Your task to perform on an android device: delete location history Image 0: 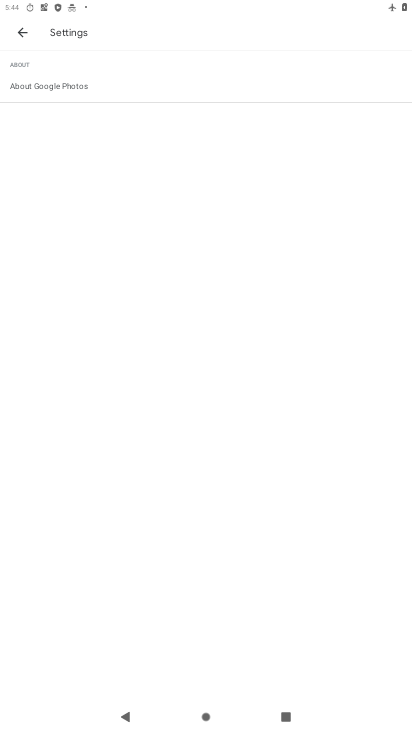
Step 0: press home button
Your task to perform on an android device: delete location history Image 1: 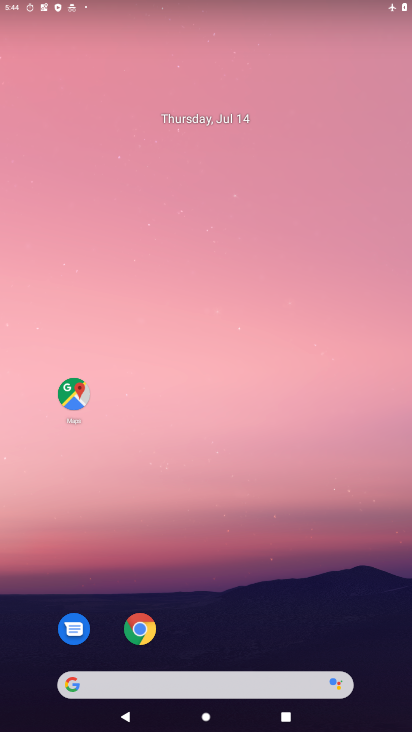
Step 1: drag from (268, 623) to (379, 0)
Your task to perform on an android device: delete location history Image 2: 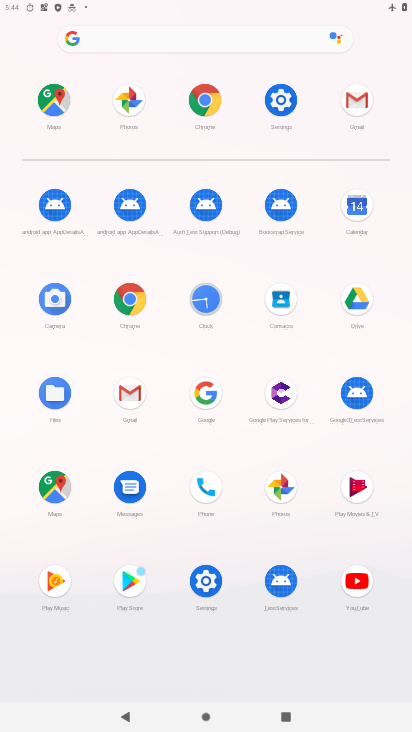
Step 2: click (59, 492)
Your task to perform on an android device: delete location history Image 3: 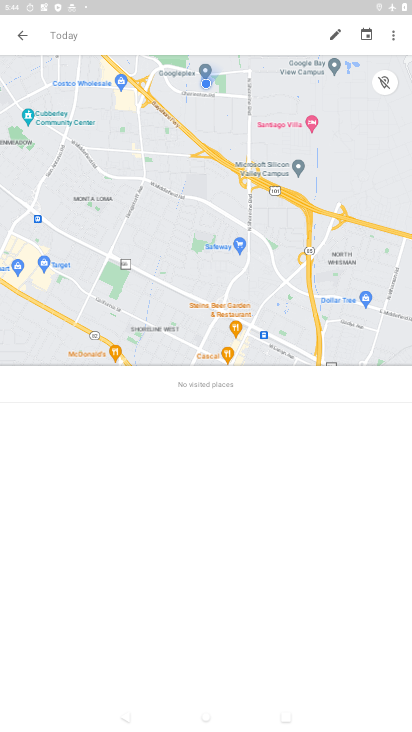
Step 3: press back button
Your task to perform on an android device: delete location history Image 4: 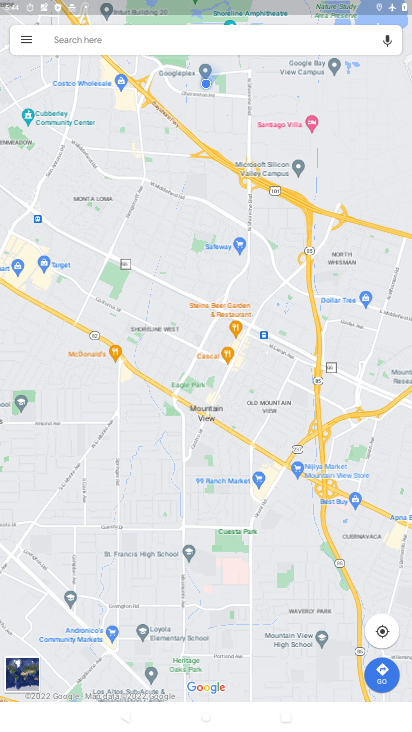
Step 4: click (34, 34)
Your task to perform on an android device: delete location history Image 5: 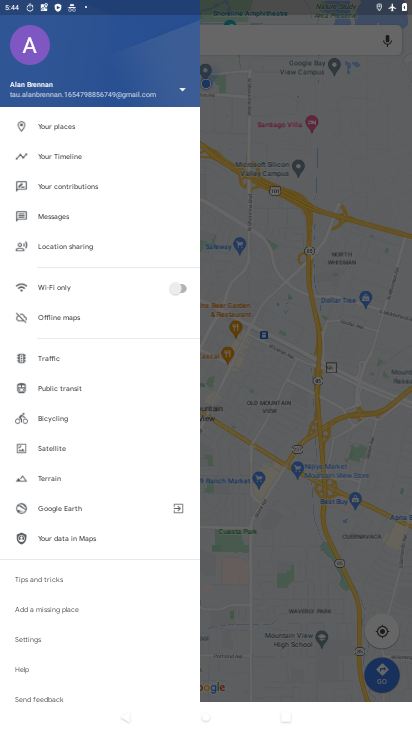
Step 5: click (101, 153)
Your task to perform on an android device: delete location history Image 6: 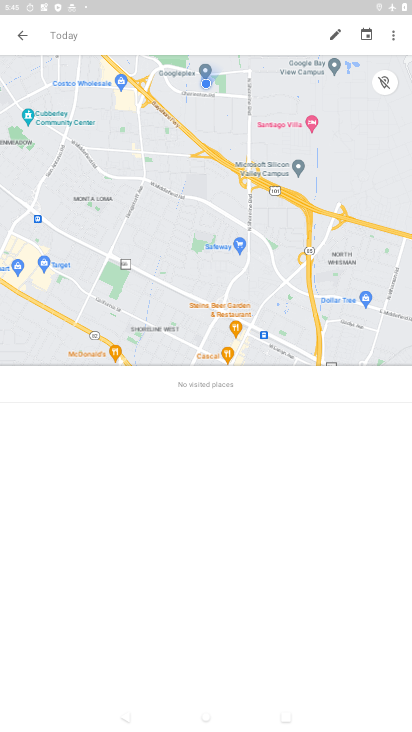
Step 6: click (388, 29)
Your task to perform on an android device: delete location history Image 7: 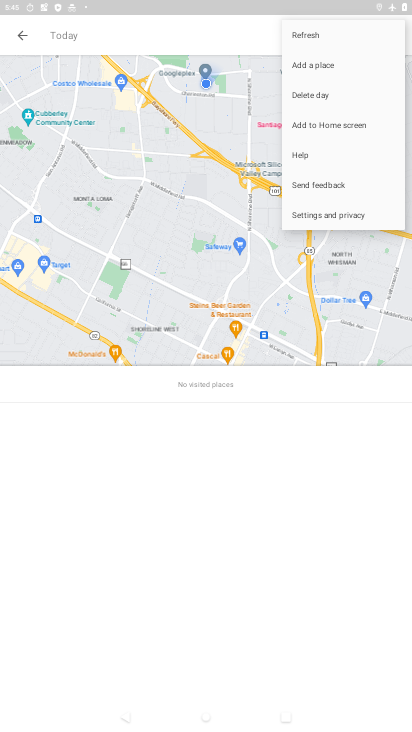
Step 7: click (336, 209)
Your task to perform on an android device: delete location history Image 8: 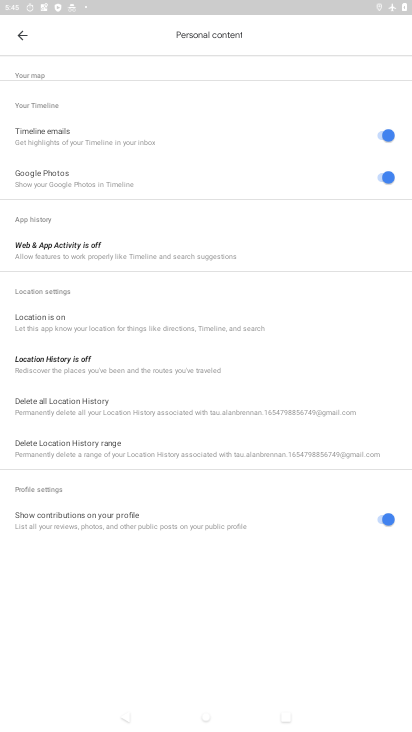
Step 8: click (73, 410)
Your task to perform on an android device: delete location history Image 9: 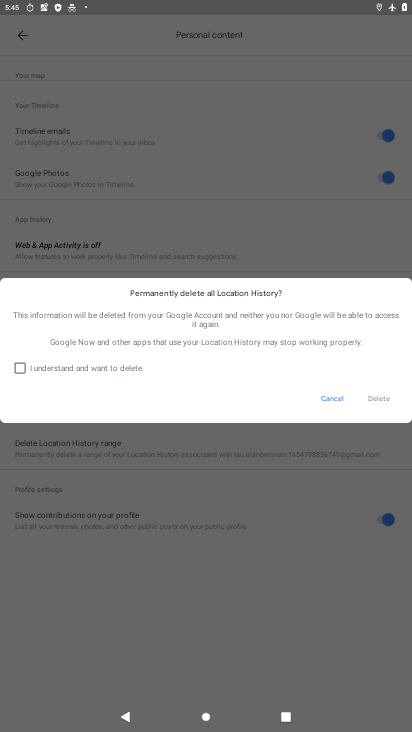
Step 9: click (20, 366)
Your task to perform on an android device: delete location history Image 10: 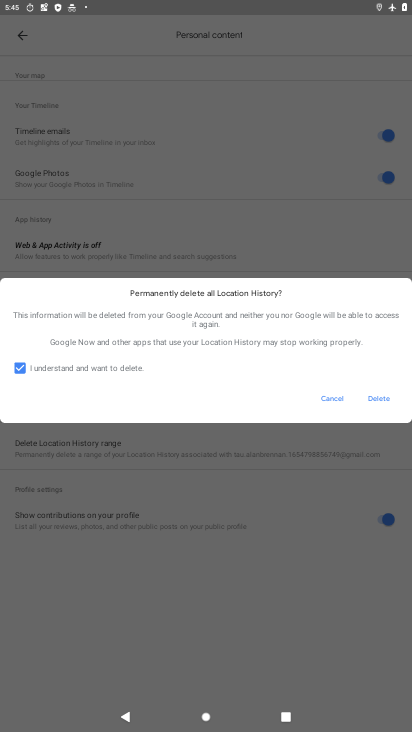
Step 10: click (386, 400)
Your task to perform on an android device: delete location history Image 11: 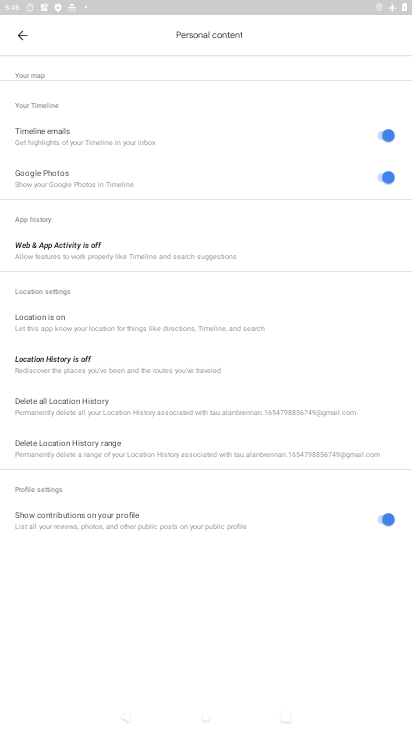
Step 11: task complete